Your task to perform on an android device: What's on my calendar tomorrow? Image 0: 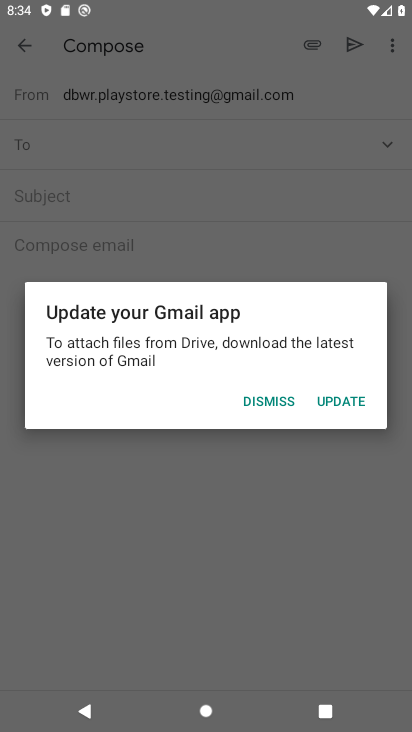
Step 0: press back button
Your task to perform on an android device: What's on my calendar tomorrow? Image 1: 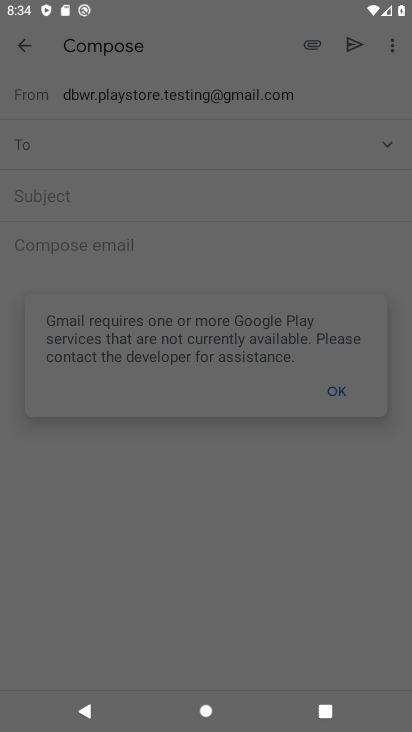
Step 1: press back button
Your task to perform on an android device: What's on my calendar tomorrow? Image 2: 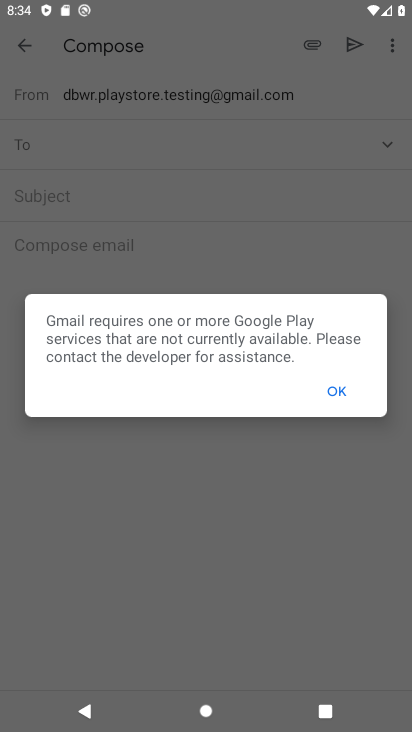
Step 2: press home button
Your task to perform on an android device: What's on my calendar tomorrow? Image 3: 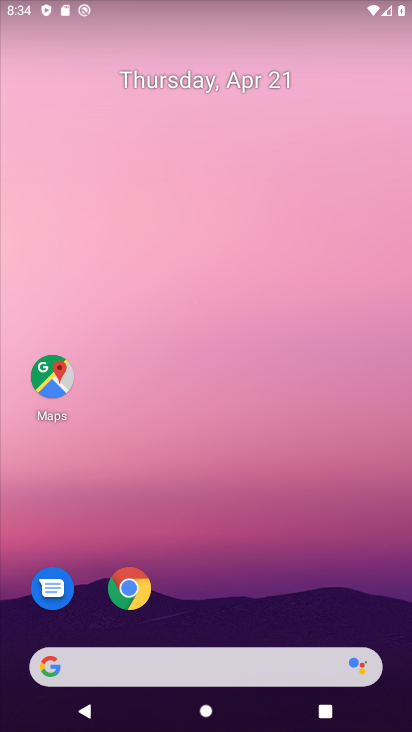
Step 3: drag from (260, 533) to (155, 54)
Your task to perform on an android device: What's on my calendar tomorrow? Image 4: 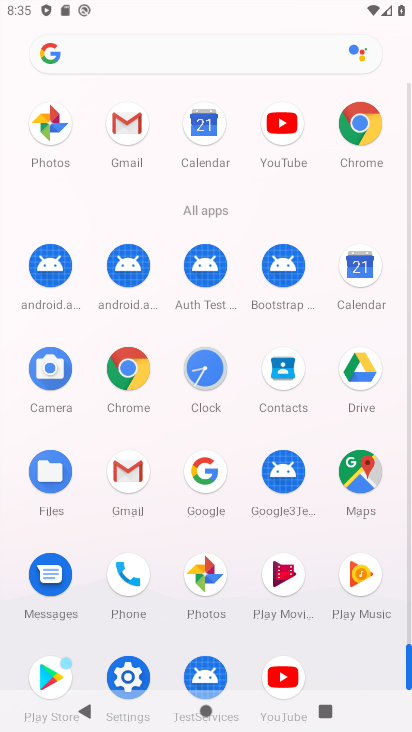
Step 4: drag from (15, 501) to (12, 289)
Your task to perform on an android device: What's on my calendar tomorrow? Image 5: 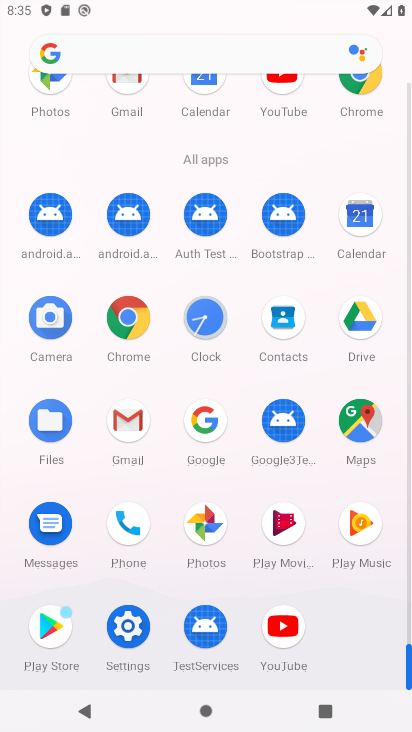
Step 5: drag from (14, 549) to (7, 314)
Your task to perform on an android device: What's on my calendar tomorrow? Image 6: 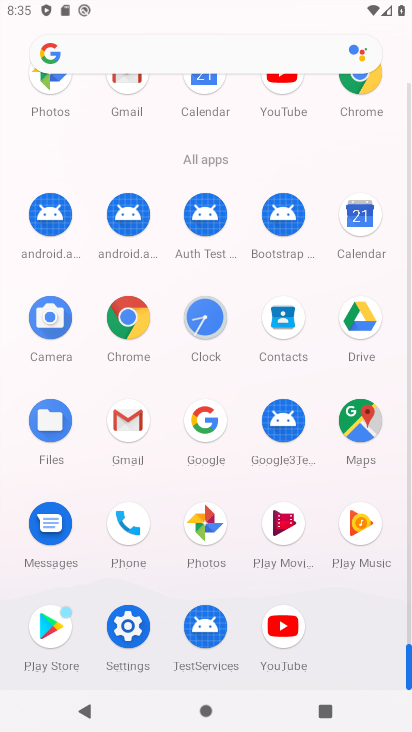
Step 6: drag from (12, 162) to (4, 310)
Your task to perform on an android device: What's on my calendar tomorrow? Image 7: 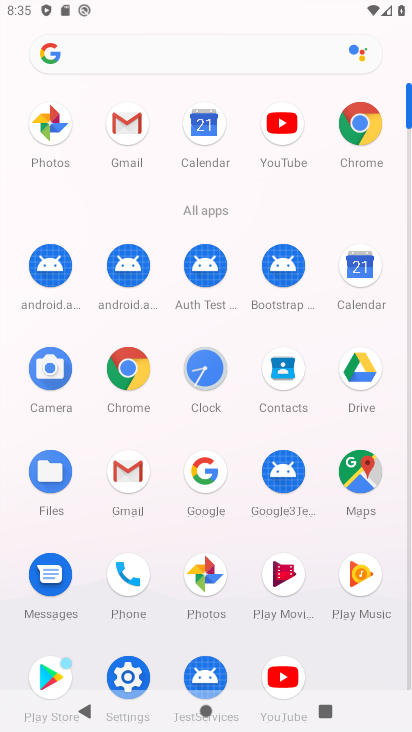
Step 7: click (358, 268)
Your task to perform on an android device: What's on my calendar tomorrow? Image 8: 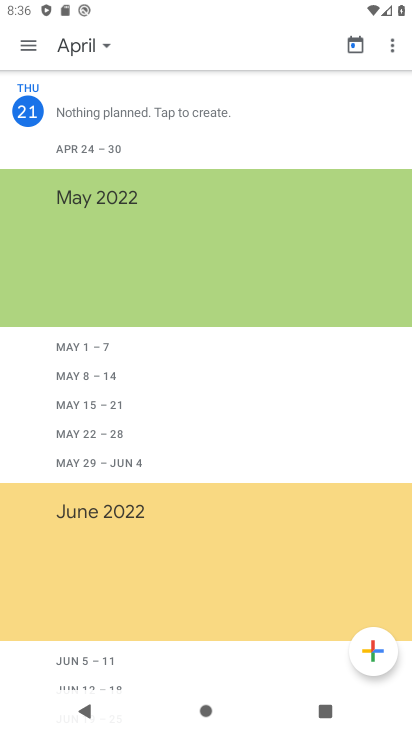
Step 8: click (82, 51)
Your task to perform on an android device: What's on my calendar tomorrow? Image 9: 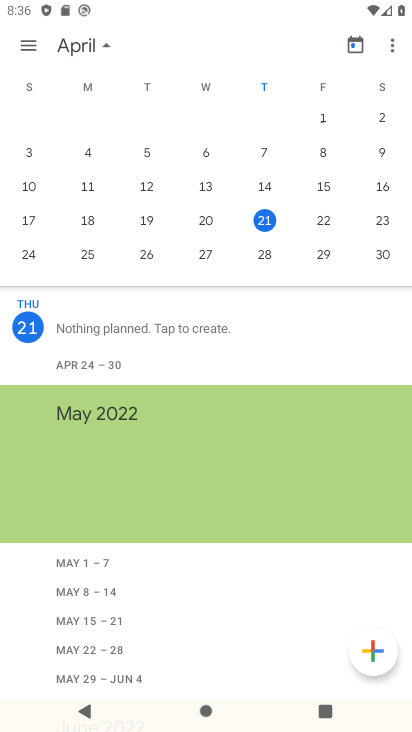
Step 9: click (39, 46)
Your task to perform on an android device: What's on my calendar tomorrow? Image 10: 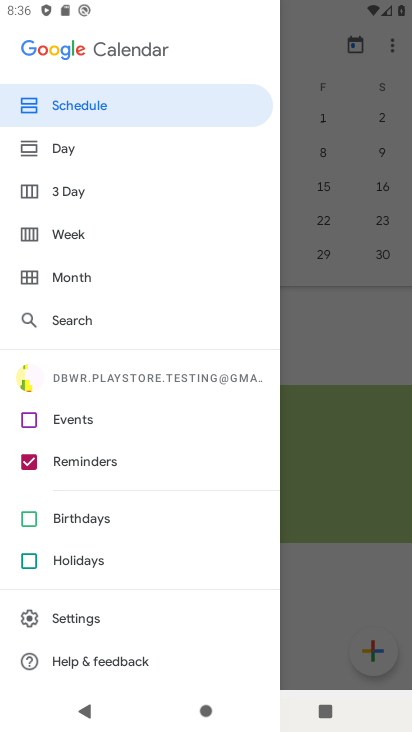
Step 10: click (25, 516)
Your task to perform on an android device: What's on my calendar tomorrow? Image 11: 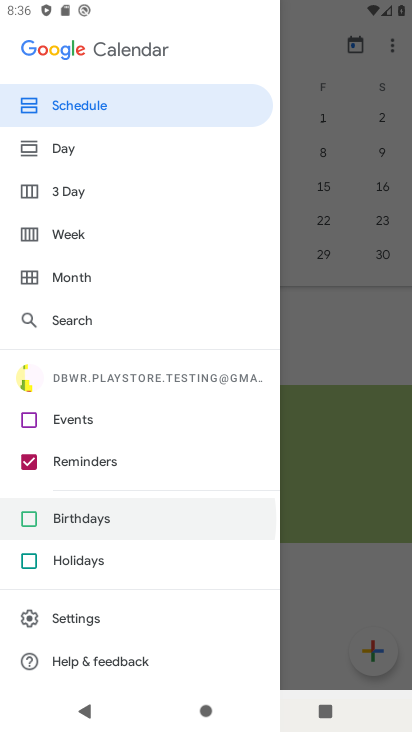
Step 11: click (27, 565)
Your task to perform on an android device: What's on my calendar tomorrow? Image 12: 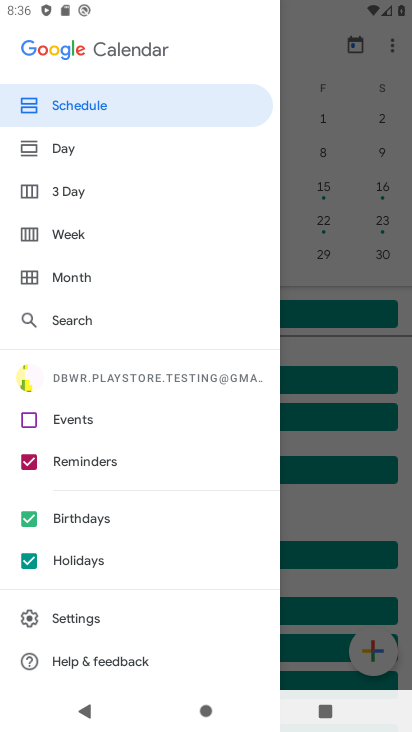
Step 12: click (29, 415)
Your task to perform on an android device: What's on my calendar tomorrow? Image 13: 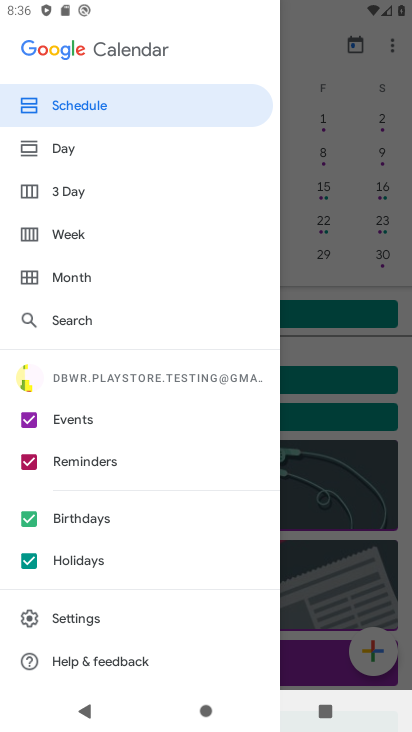
Step 13: click (320, 137)
Your task to perform on an android device: What's on my calendar tomorrow? Image 14: 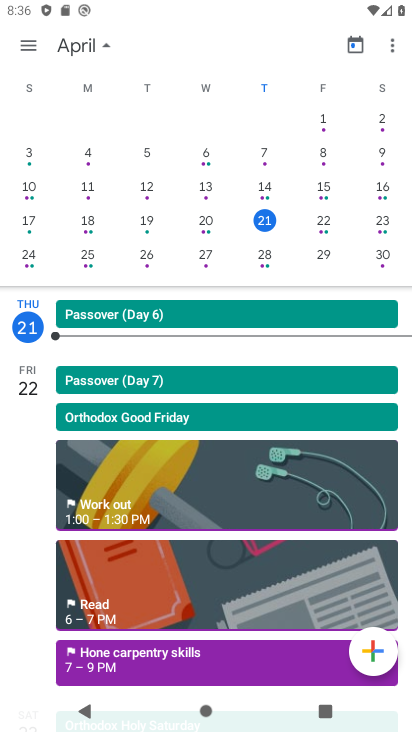
Step 14: click (316, 225)
Your task to perform on an android device: What's on my calendar tomorrow? Image 15: 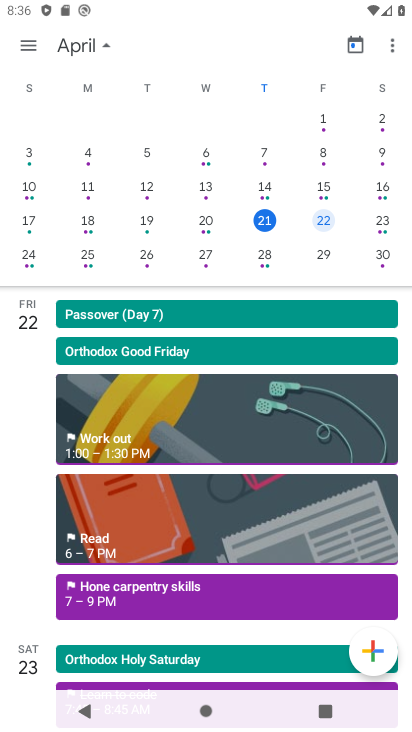
Step 15: task complete